Your task to perform on an android device: turn on translation in the chrome app Image 0: 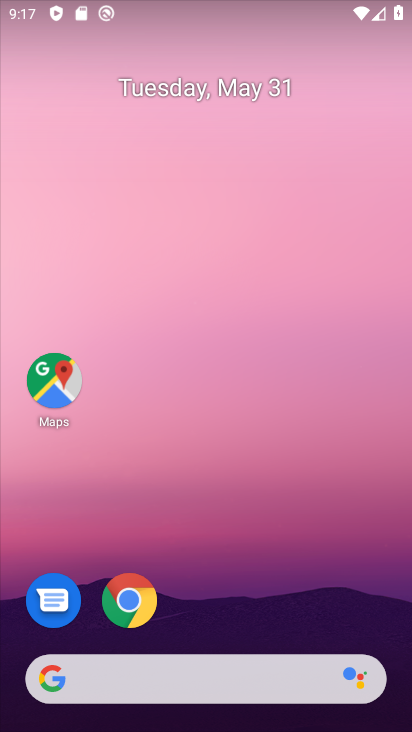
Step 0: click (122, 609)
Your task to perform on an android device: turn on translation in the chrome app Image 1: 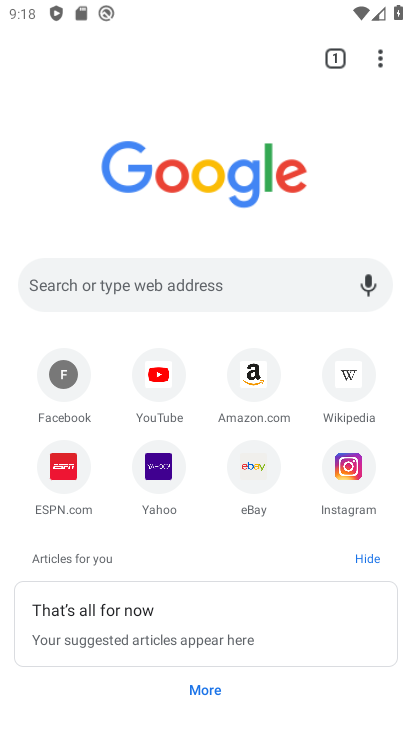
Step 1: click (384, 52)
Your task to perform on an android device: turn on translation in the chrome app Image 2: 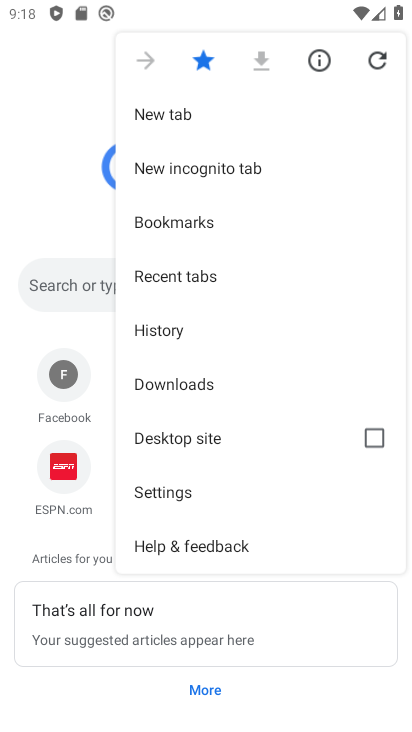
Step 2: click (227, 489)
Your task to perform on an android device: turn on translation in the chrome app Image 3: 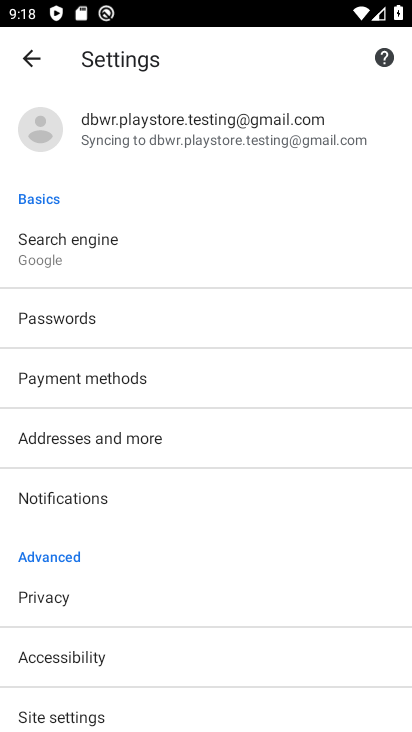
Step 3: drag from (95, 676) to (72, 275)
Your task to perform on an android device: turn on translation in the chrome app Image 4: 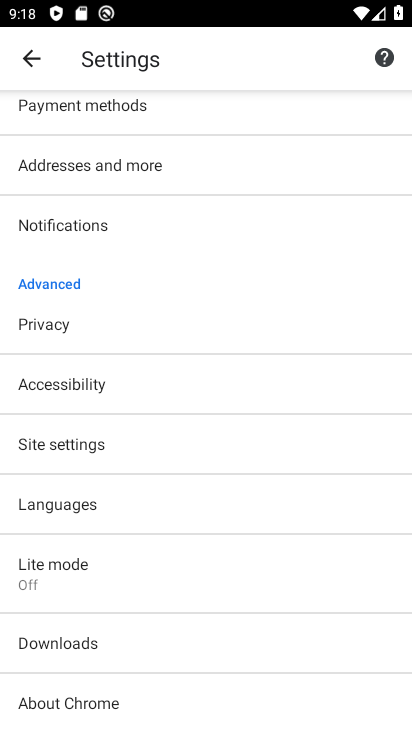
Step 4: click (96, 502)
Your task to perform on an android device: turn on translation in the chrome app Image 5: 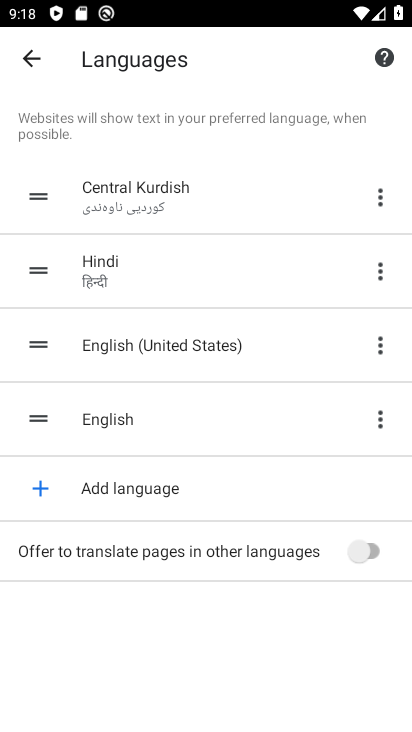
Step 5: click (370, 548)
Your task to perform on an android device: turn on translation in the chrome app Image 6: 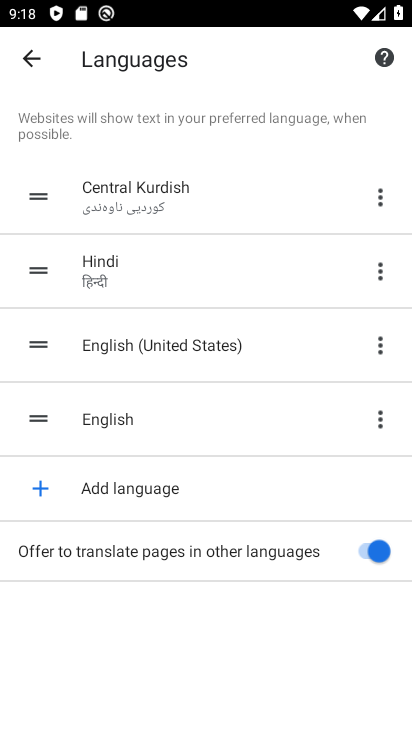
Step 6: task complete